Your task to perform on an android device: What's the weather going to be this weekend? Image 0: 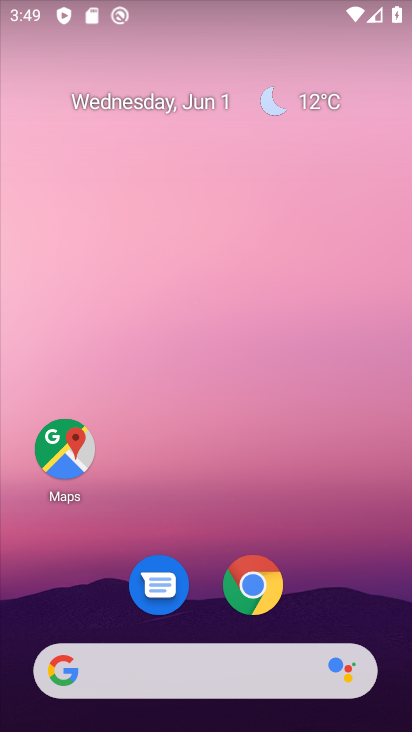
Step 0: click (279, 101)
Your task to perform on an android device: What's the weather going to be this weekend? Image 1: 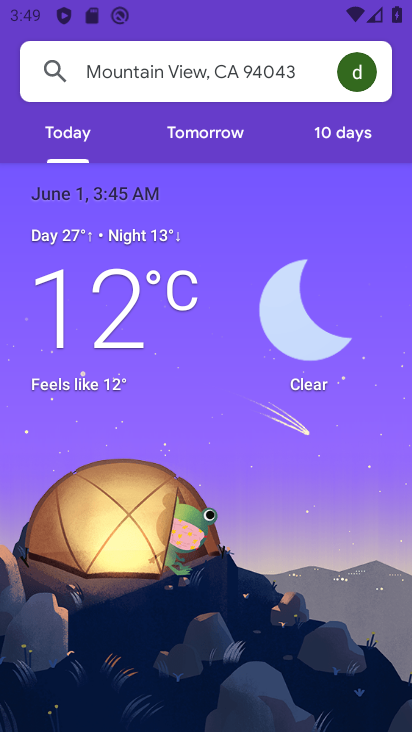
Step 1: click (329, 128)
Your task to perform on an android device: What's the weather going to be this weekend? Image 2: 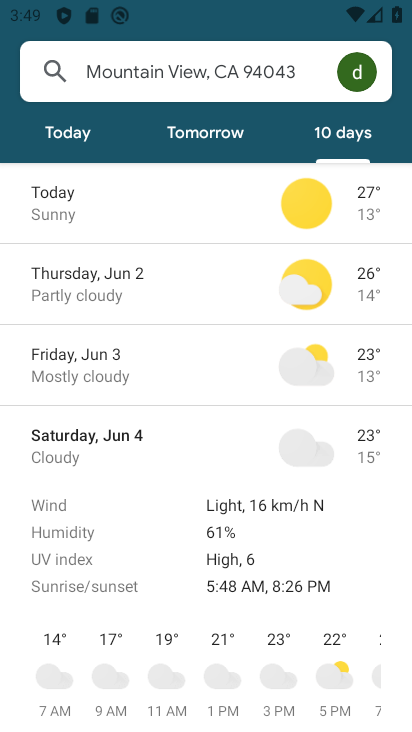
Step 2: task complete